Your task to perform on an android device: What is the recent news? Image 0: 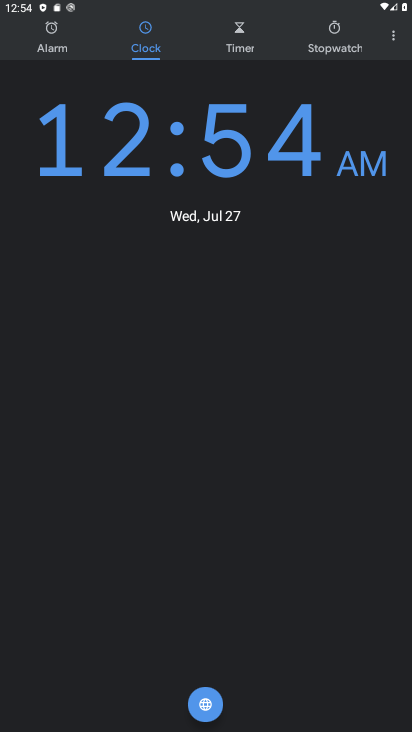
Step 0: press home button
Your task to perform on an android device: What is the recent news? Image 1: 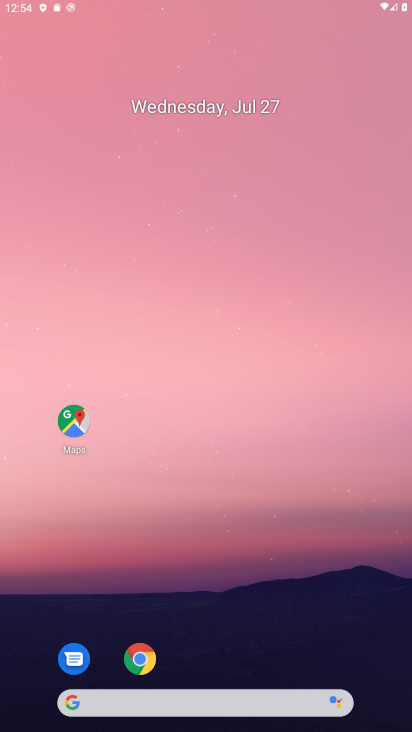
Step 1: drag from (250, 646) to (273, 20)
Your task to perform on an android device: What is the recent news? Image 2: 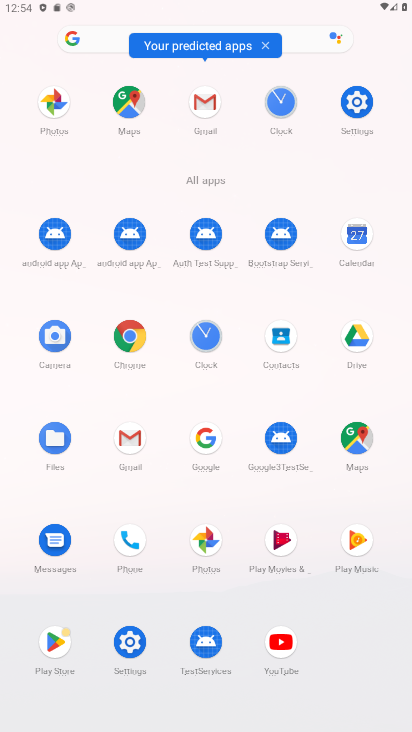
Step 2: click (128, 330)
Your task to perform on an android device: What is the recent news? Image 3: 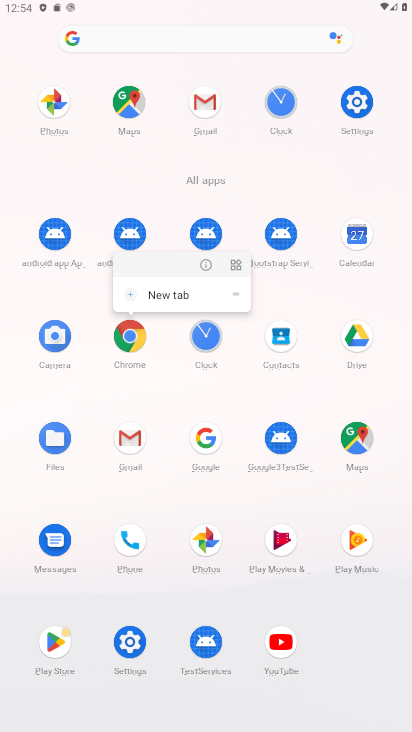
Step 3: click (141, 346)
Your task to perform on an android device: What is the recent news? Image 4: 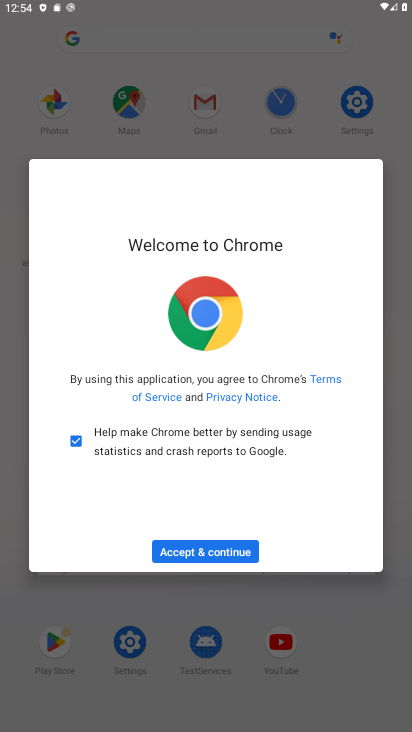
Step 4: click (182, 548)
Your task to perform on an android device: What is the recent news? Image 5: 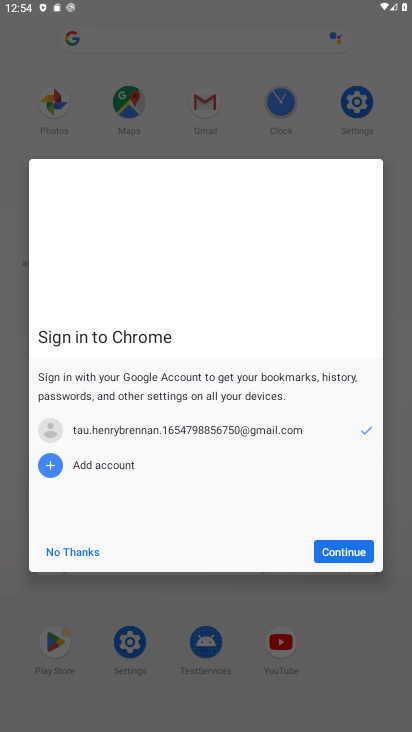
Step 5: click (56, 551)
Your task to perform on an android device: What is the recent news? Image 6: 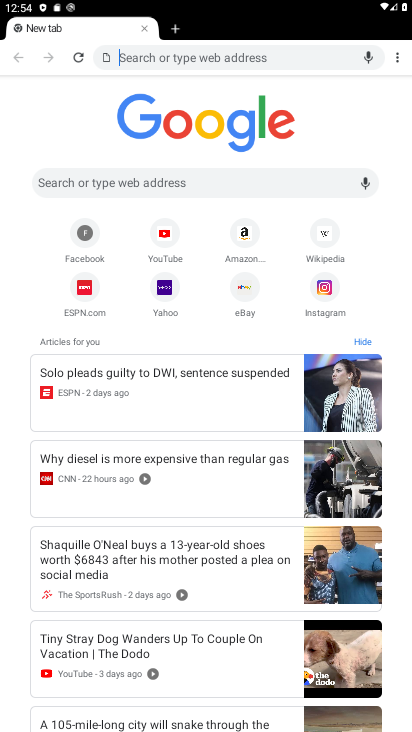
Step 6: task complete